Your task to perform on an android device: check out phone information Image 0: 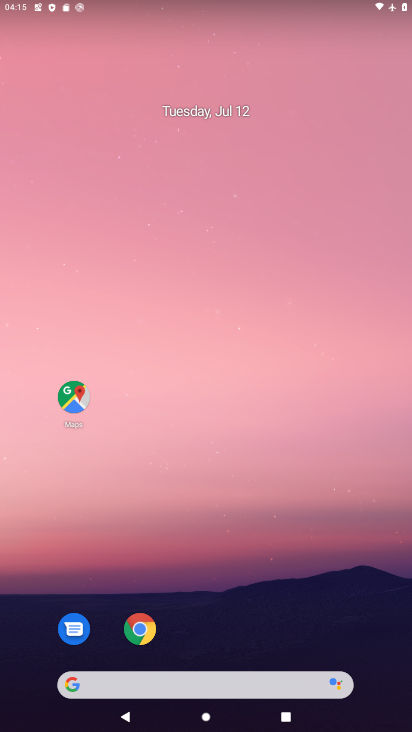
Step 0: drag from (314, 477) to (283, 219)
Your task to perform on an android device: check out phone information Image 1: 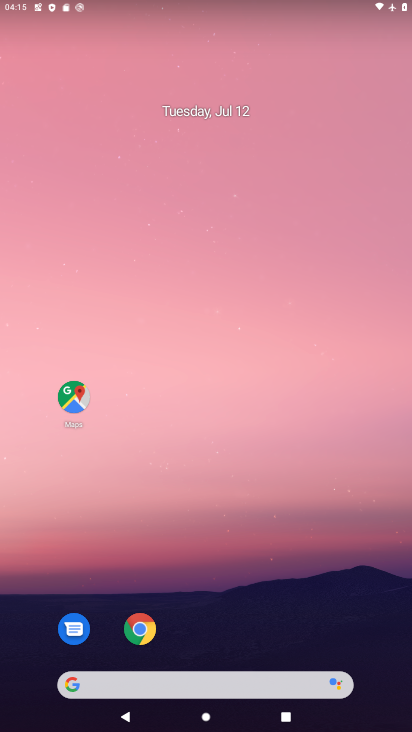
Step 1: drag from (330, 564) to (278, 95)
Your task to perform on an android device: check out phone information Image 2: 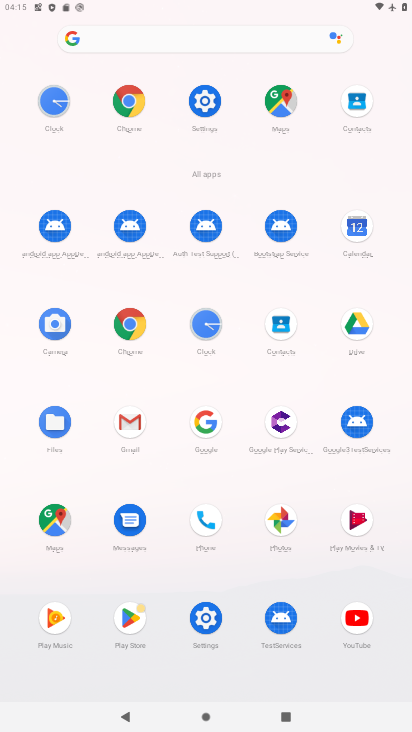
Step 2: click (212, 517)
Your task to perform on an android device: check out phone information Image 3: 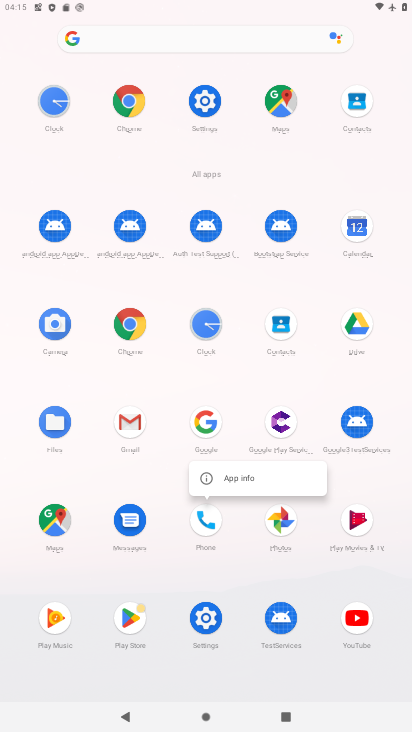
Step 3: click (227, 481)
Your task to perform on an android device: check out phone information Image 4: 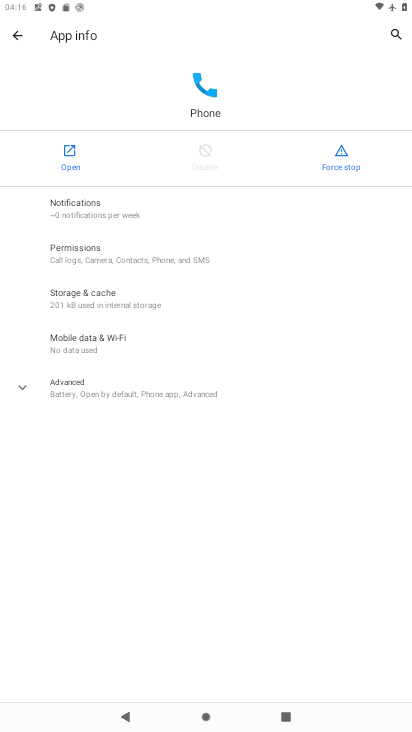
Step 4: click (209, 391)
Your task to perform on an android device: check out phone information Image 5: 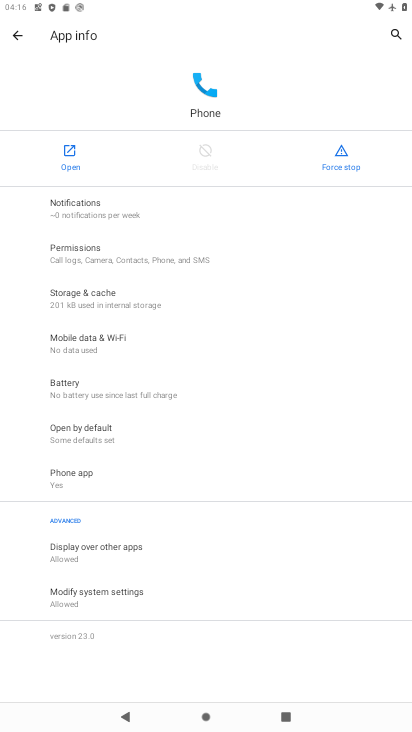
Step 5: task complete